Your task to perform on an android device: turn on the 24-hour format for clock Image 0: 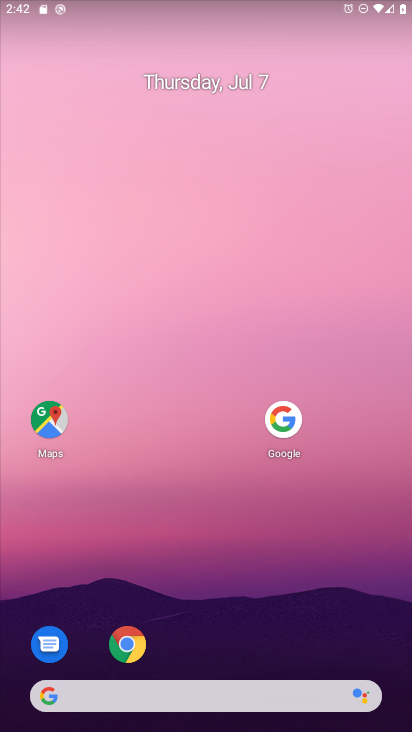
Step 0: drag from (196, 692) to (272, 124)
Your task to perform on an android device: turn on the 24-hour format for clock Image 1: 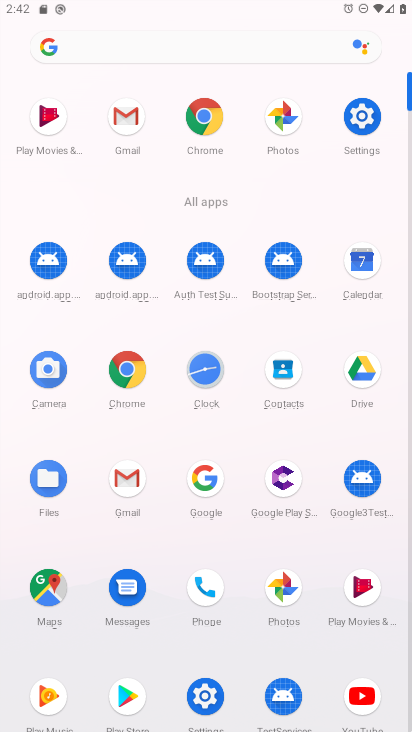
Step 1: click (212, 369)
Your task to perform on an android device: turn on the 24-hour format for clock Image 2: 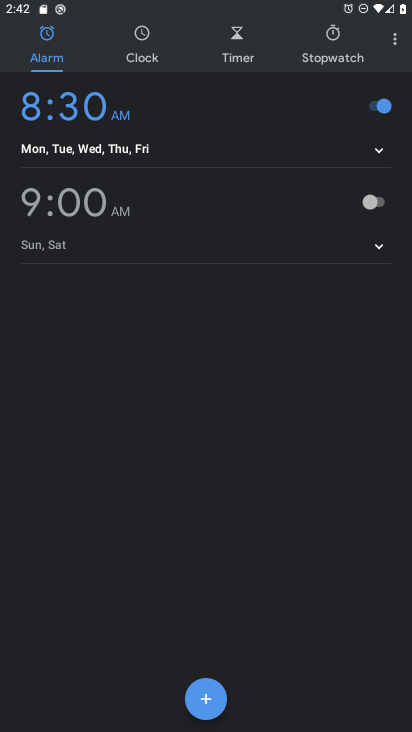
Step 2: click (393, 46)
Your task to perform on an android device: turn on the 24-hour format for clock Image 3: 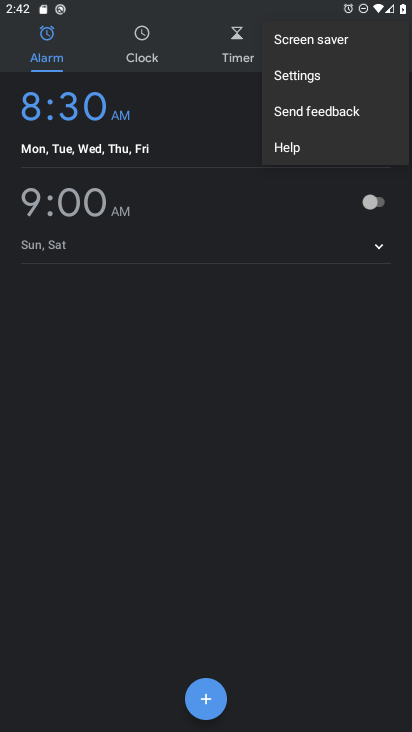
Step 3: click (303, 76)
Your task to perform on an android device: turn on the 24-hour format for clock Image 4: 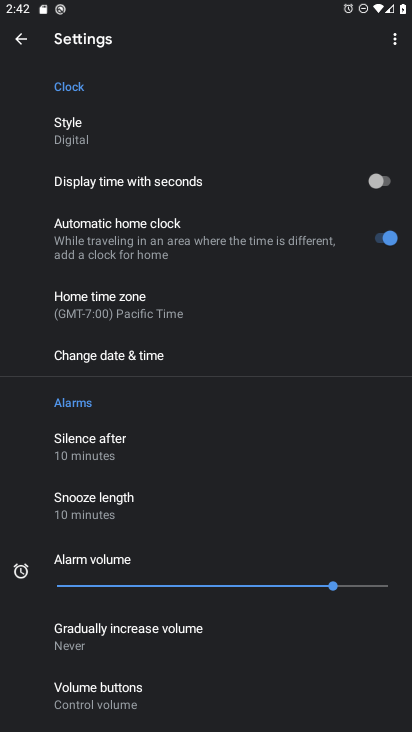
Step 4: click (138, 355)
Your task to perform on an android device: turn on the 24-hour format for clock Image 5: 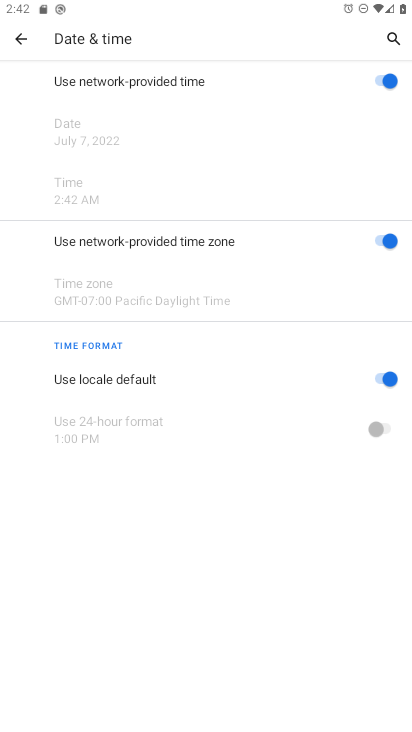
Step 5: click (385, 375)
Your task to perform on an android device: turn on the 24-hour format for clock Image 6: 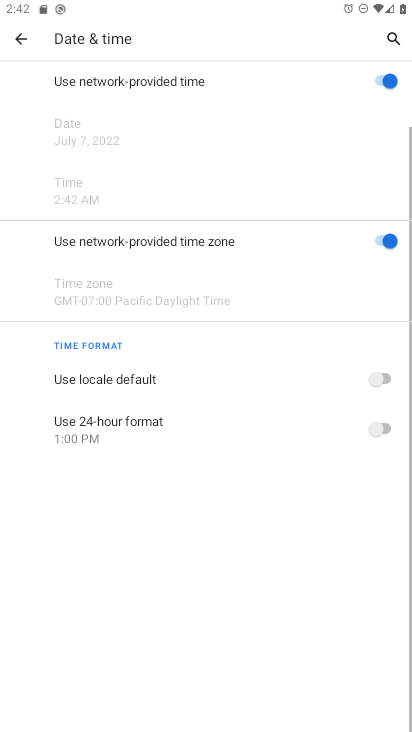
Step 6: click (389, 428)
Your task to perform on an android device: turn on the 24-hour format for clock Image 7: 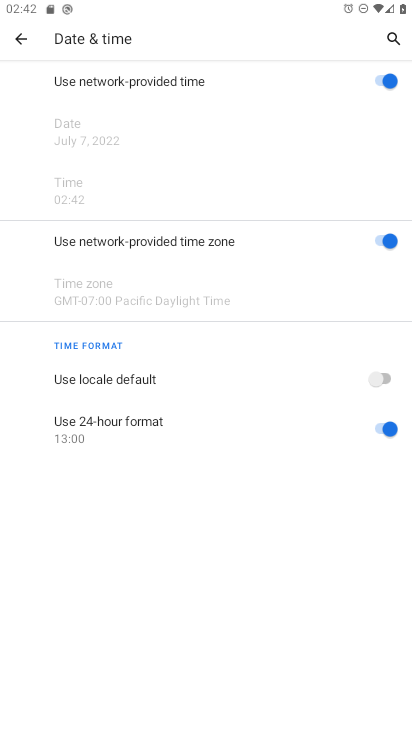
Step 7: task complete